Your task to perform on an android device: What's the weather? Image 0: 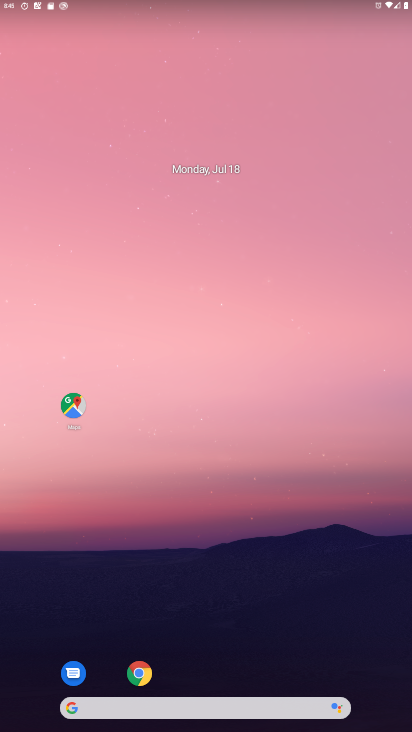
Step 0: click (168, 704)
Your task to perform on an android device: What's the weather? Image 1: 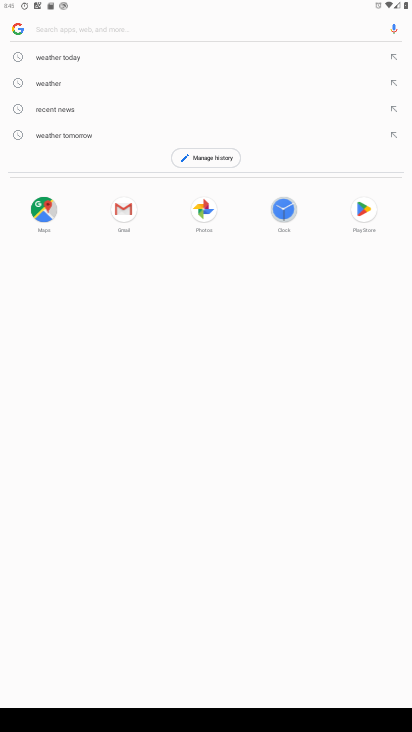
Step 1: click (30, 83)
Your task to perform on an android device: What's the weather? Image 2: 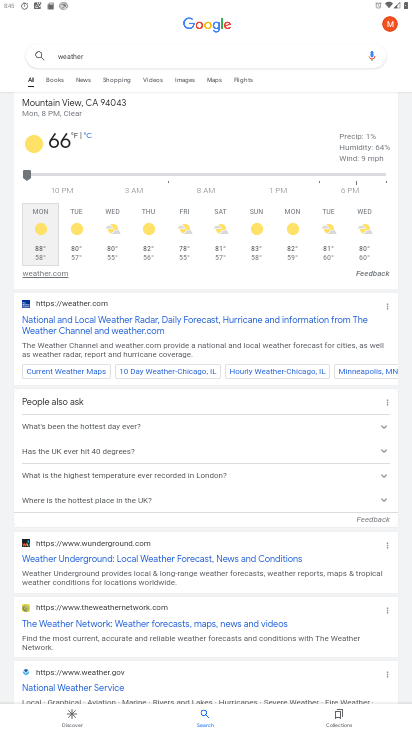
Step 2: task complete